Your task to perform on an android device: open chrome privacy settings Image 0: 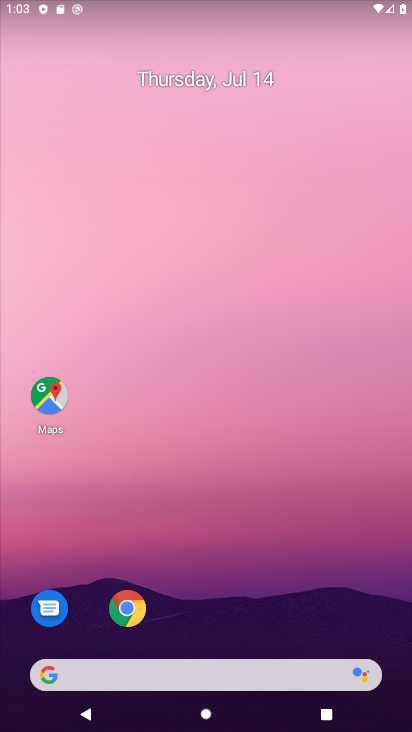
Step 0: drag from (170, 668) to (138, 329)
Your task to perform on an android device: open chrome privacy settings Image 1: 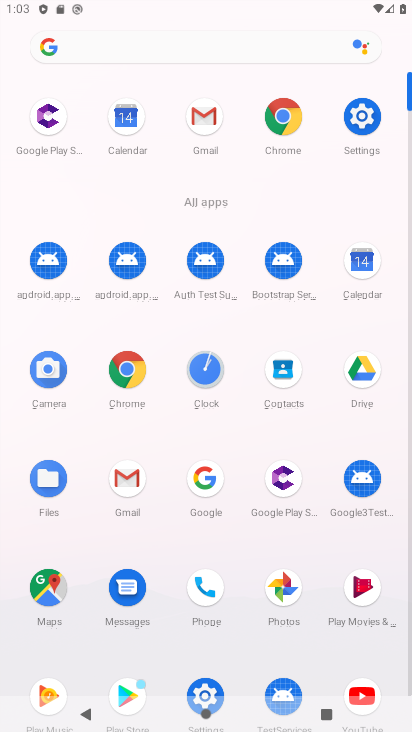
Step 1: click (285, 117)
Your task to perform on an android device: open chrome privacy settings Image 2: 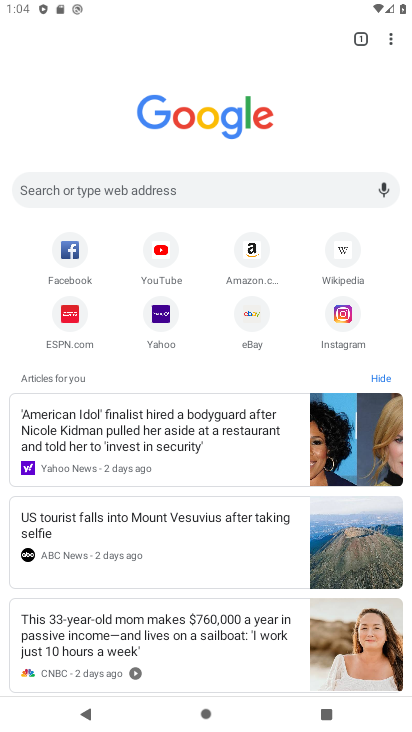
Step 2: click (387, 45)
Your task to perform on an android device: open chrome privacy settings Image 3: 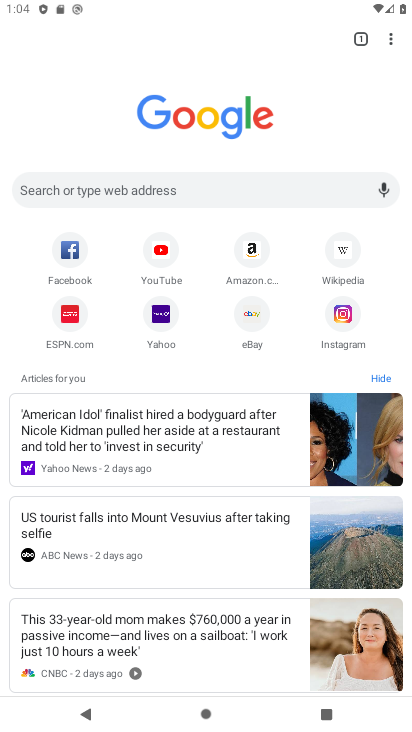
Step 3: click (397, 34)
Your task to perform on an android device: open chrome privacy settings Image 4: 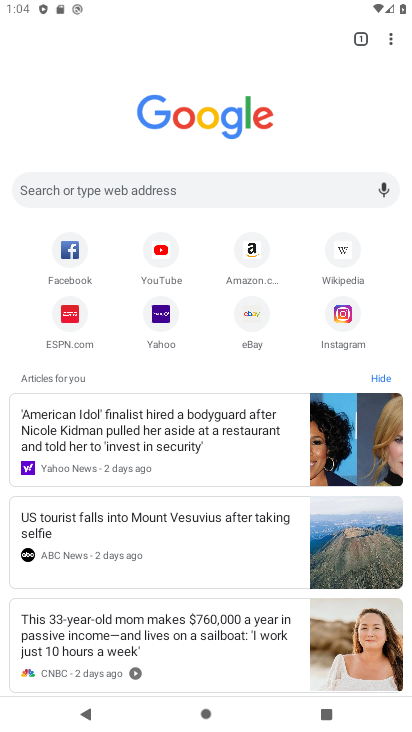
Step 4: click (391, 32)
Your task to perform on an android device: open chrome privacy settings Image 5: 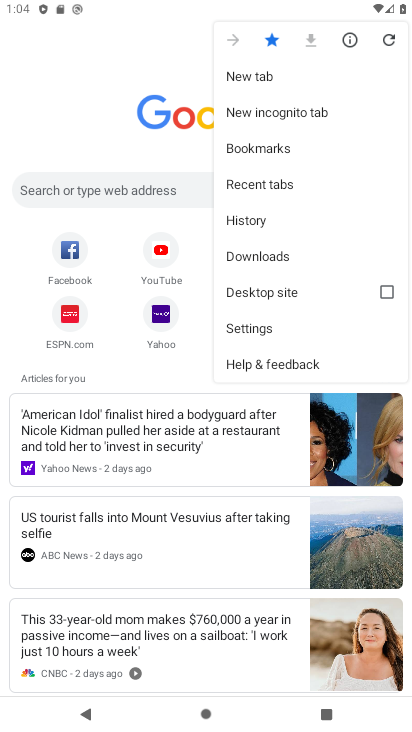
Step 5: click (248, 329)
Your task to perform on an android device: open chrome privacy settings Image 6: 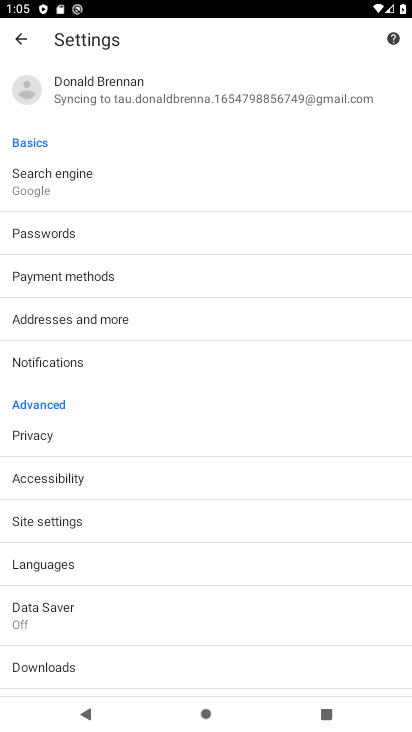
Step 6: click (24, 432)
Your task to perform on an android device: open chrome privacy settings Image 7: 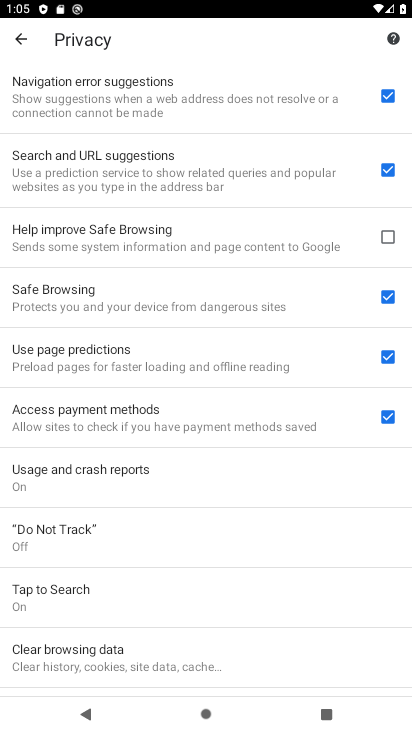
Step 7: task complete